Your task to perform on an android device: toggle show notifications on the lock screen Image 0: 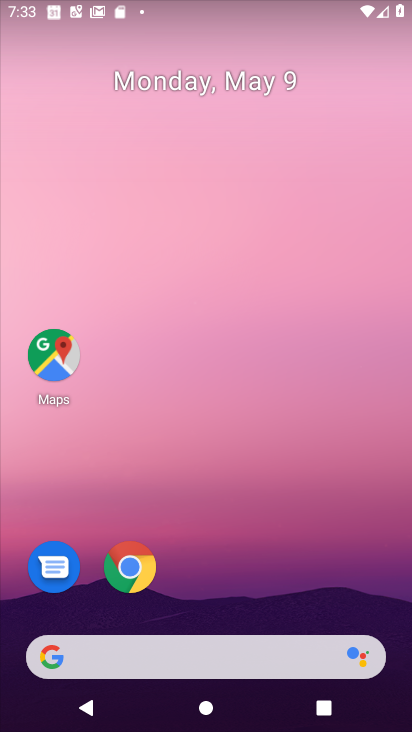
Step 0: drag from (193, 623) to (259, 202)
Your task to perform on an android device: toggle show notifications on the lock screen Image 1: 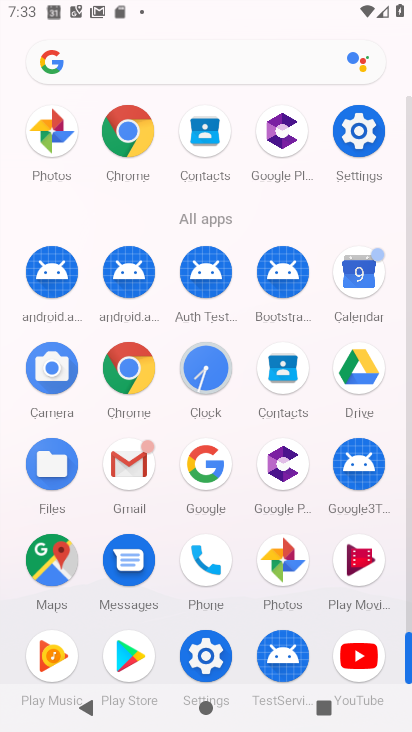
Step 1: drag from (255, 605) to (238, 294)
Your task to perform on an android device: toggle show notifications on the lock screen Image 2: 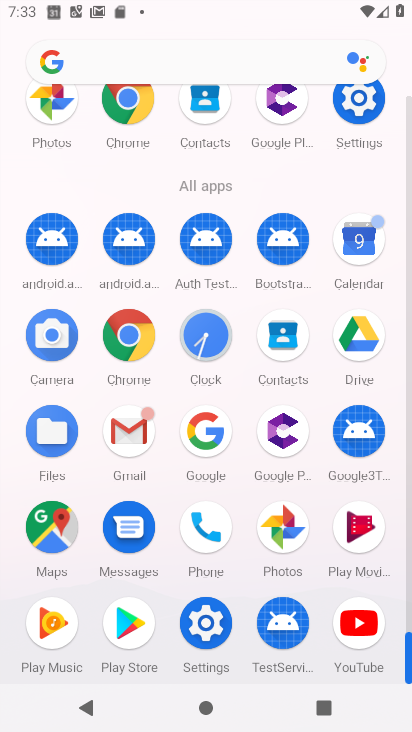
Step 2: click (213, 619)
Your task to perform on an android device: toggle show notifications on the lock screen Image 3: 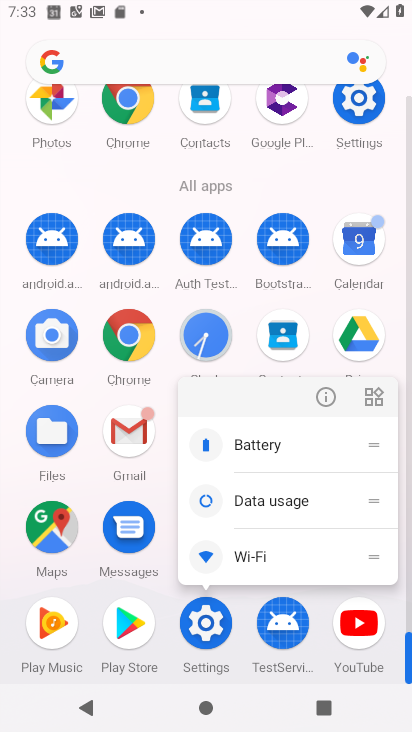
Step 3: click (324, 394)
Your task to perform on an android device: toggle show notifications on the lock screen Image 4: 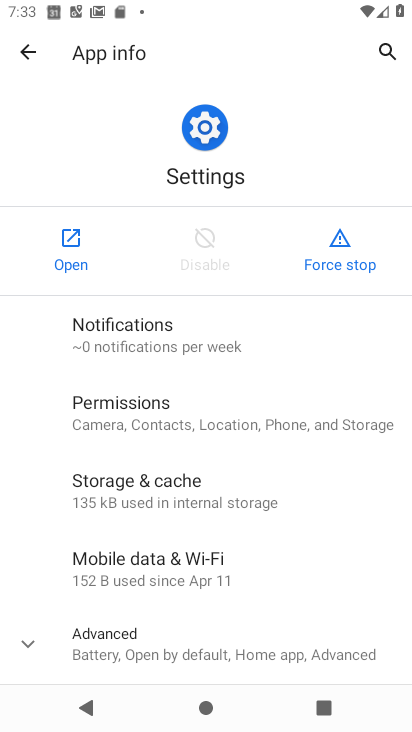
Step 4: click (70, 232)
Your task to perform on an android device: toggle show notifications on the lock screen Image 5: 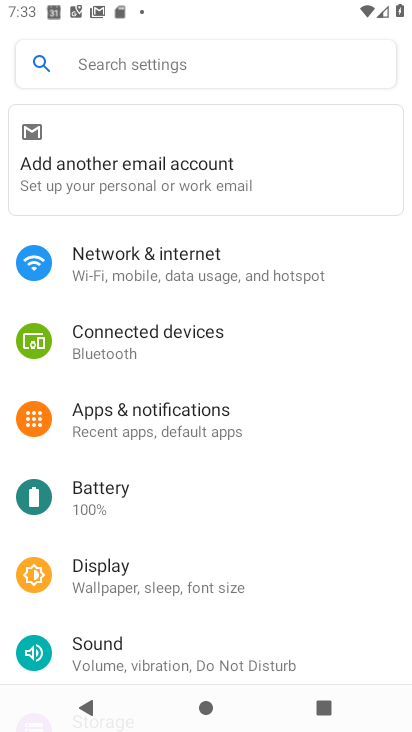
Step 5: click (181, 386)
Your task to perform on an android device: toggle show notifications on the lock screen Image 6: 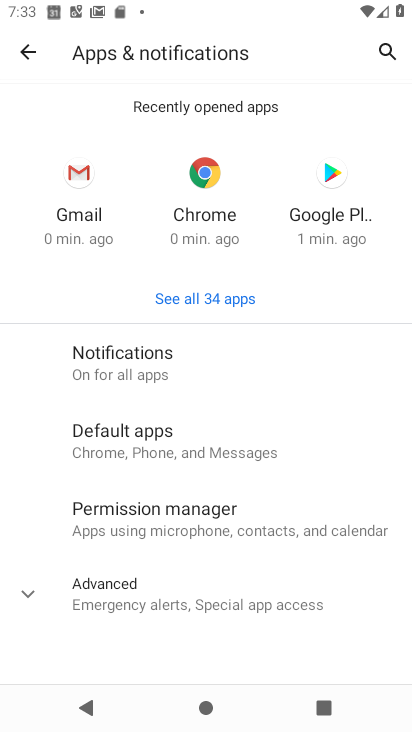
Step 6: click (174, 370)
Your task to perform on an android device: toggle show notifications on the lock screen Image 7: 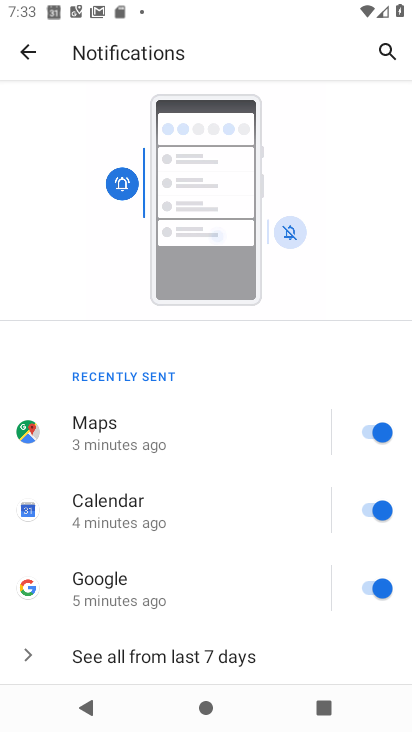
Step 7: drag from (208, 624) to (272, 191)
Your task to perform on an android device: toggle show notifications on the lock screen Image 8: 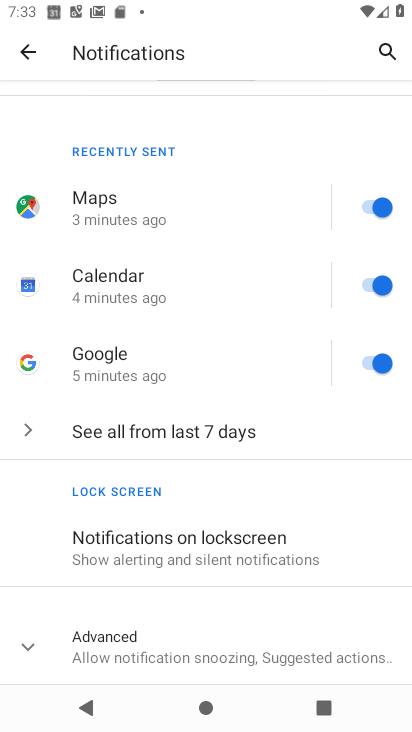
Step 8: click (239, 550)
Your task to perform on an android device: toggle show notifications on the lock screen Image 9: 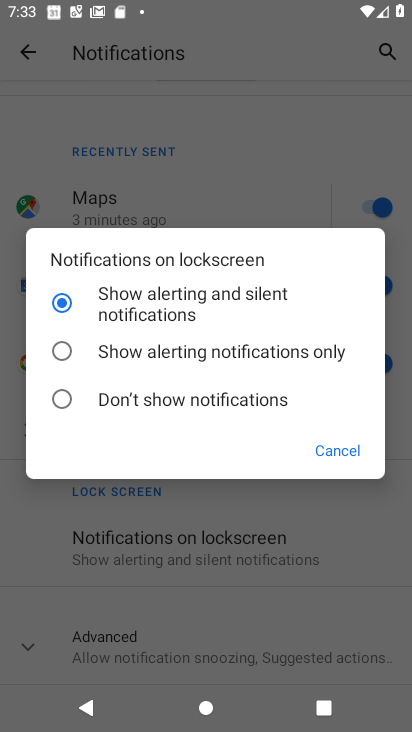
Step 9: click (131, 348)
Your task to perform on an android device: toggle show notifications on the lock screen Image 10: 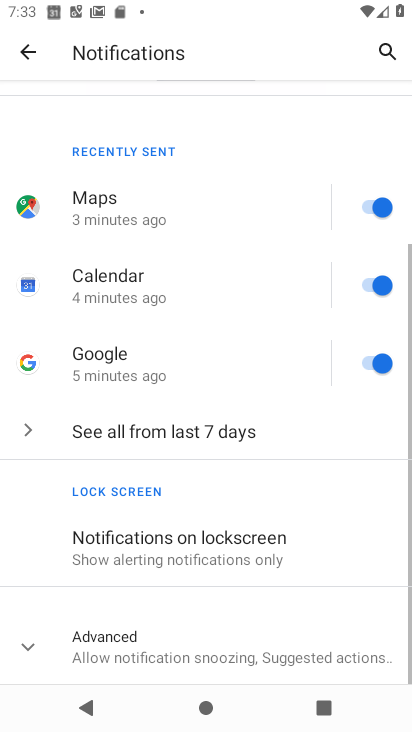
Step 10: task complete